Your task to perform on an android device: Open CNN.com Image 0: 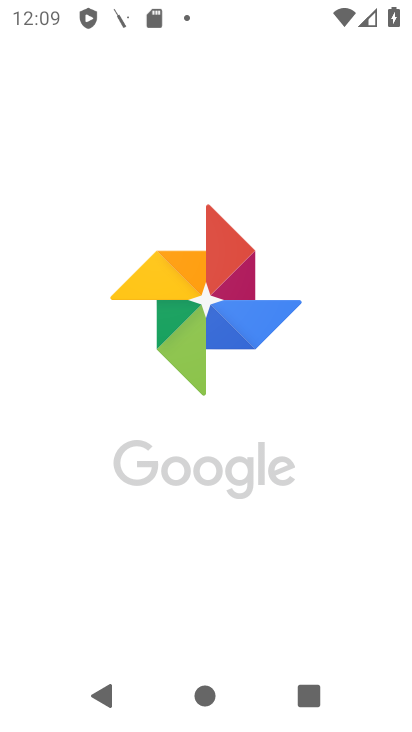
Step 0: drag from (257, 70) to (297, 426)
Your task to perform on an android device: Open CNN.com Image 1: 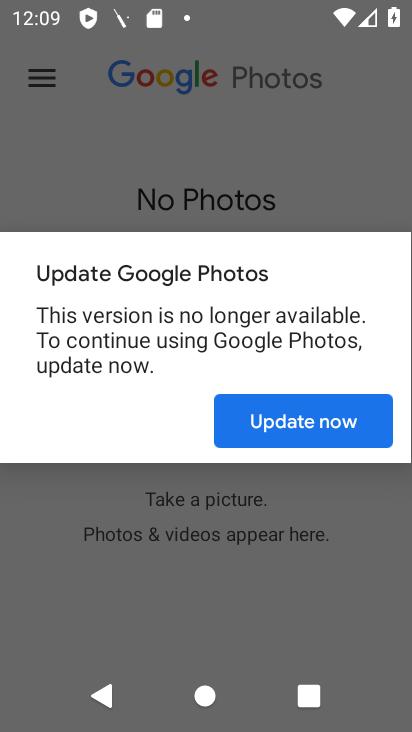
Step 1: press home button
Your task to perform on an android device: Open CNN.com Image 2: 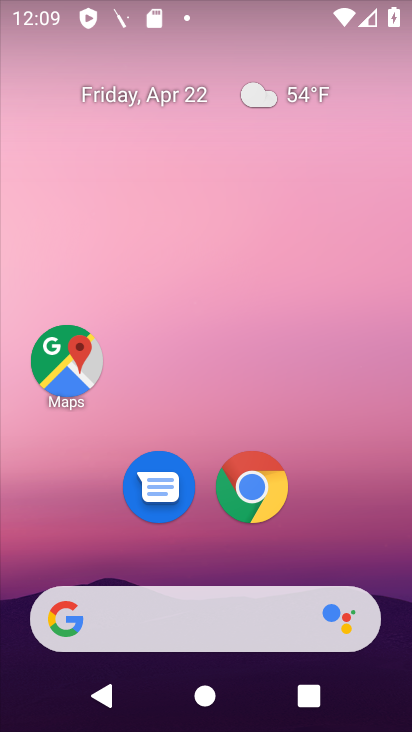
Step 2: drag from (270, 551) to (305, 90)
Your task to perform on an android device: Open CNN.com Image 3: 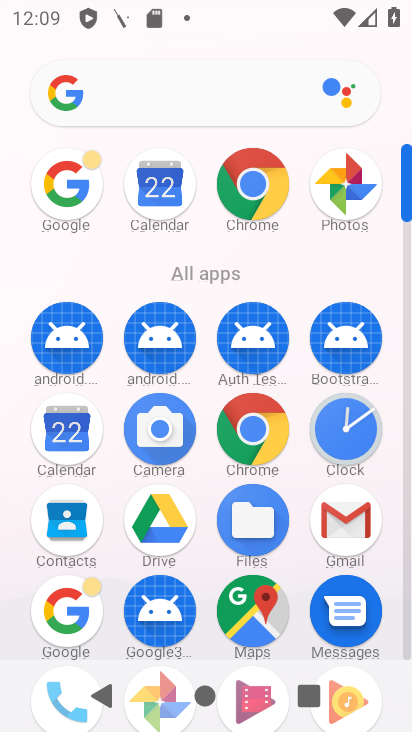
Step 3: click (264, 431)
Your task to perform on an android device: Open CNN.com Image 4: 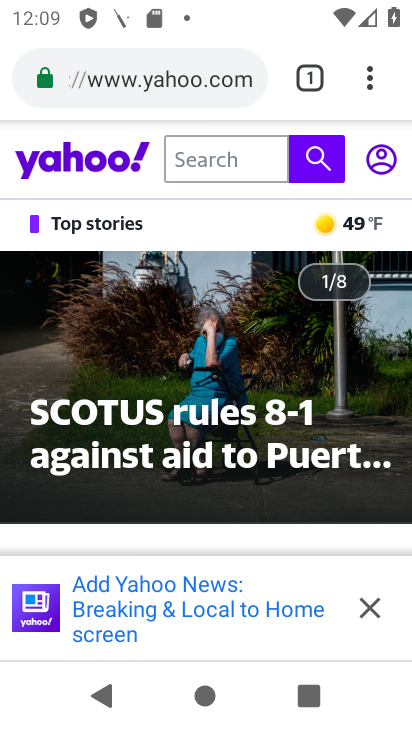
Step 4: click (316, 72)
Your task to perform on an android device: Open CNN.com Image 5: 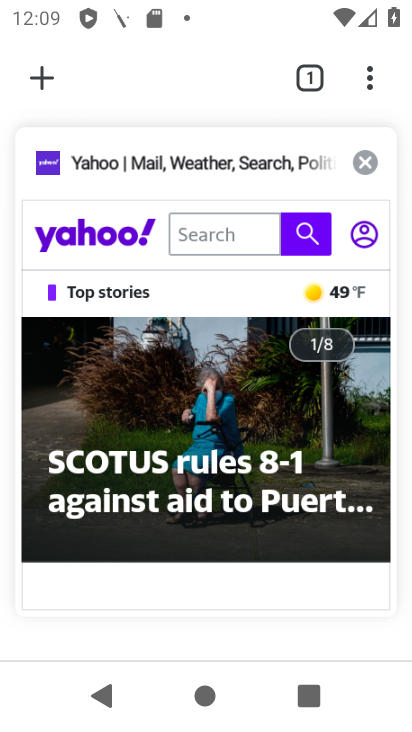
Step 5: click (29, 82)
Your task to perform on an android device: Open CNN.com Image 6: 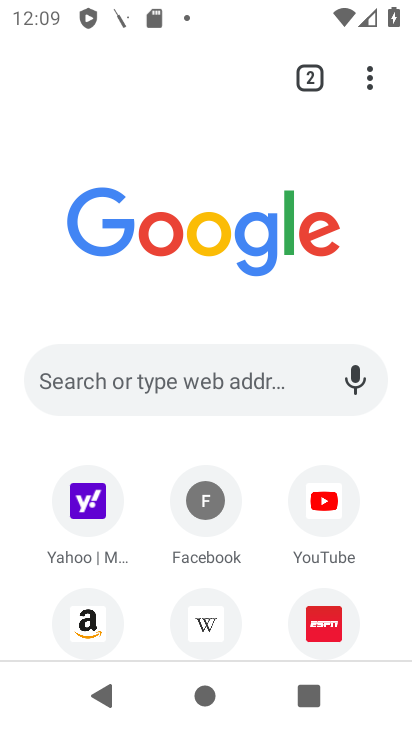
Step 6: click (136, 376)
Your task to perform on an android device: Open CNN.com Image 7: 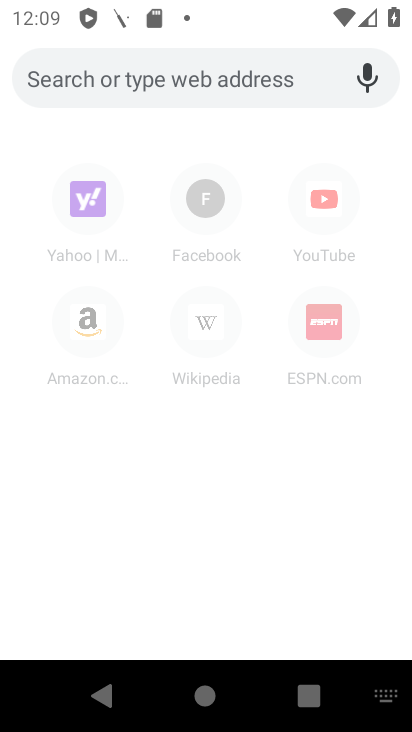
Step 7: type "cnn"
Your task to perform on an android device: Open CNN.com Image 8: 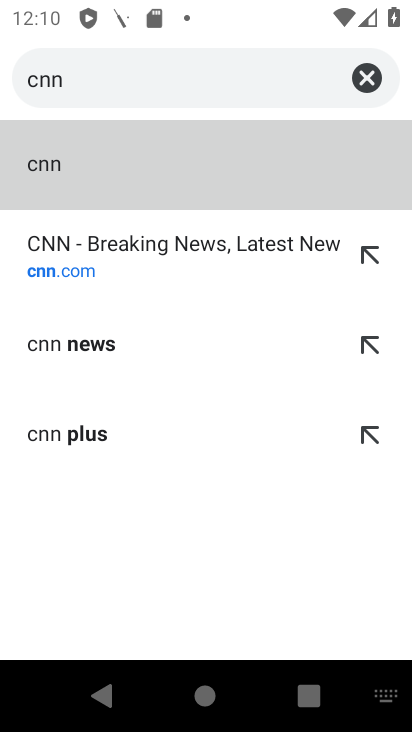
Step 8: click (78, 271)
Your task to perform on an android device: Open CNN.com Image 9: 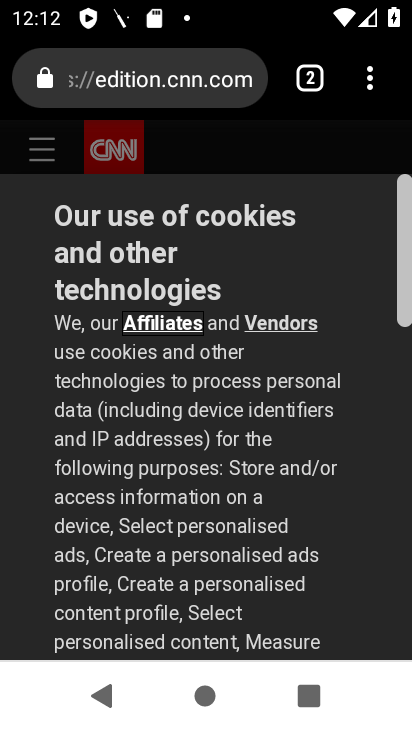
Step 9: task complete